Your task to perform on an android device: What's the weather going to be tomorrow? Image 0: 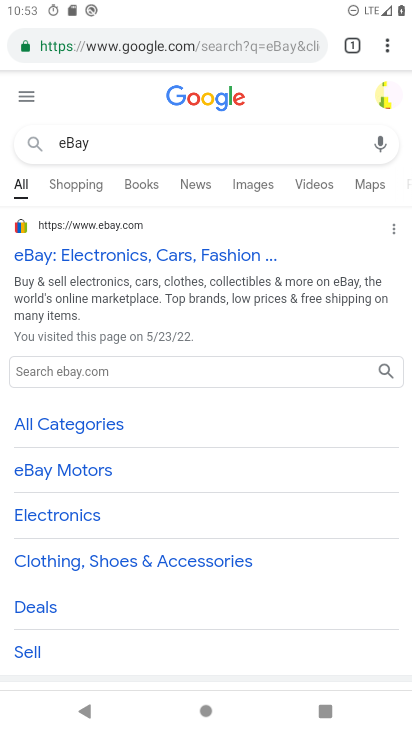
Step 0: press home button
Your task to perform on an android device: What's the weather going to be tomorrow? Image 1: 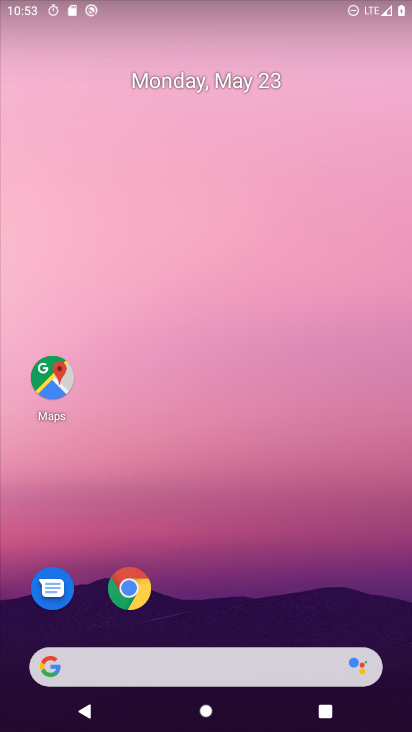
Step 1: drag from (386, 695) to (314, 168)
Your task to perform on an android device: What's the weather going to be tomorrow? Image 2: 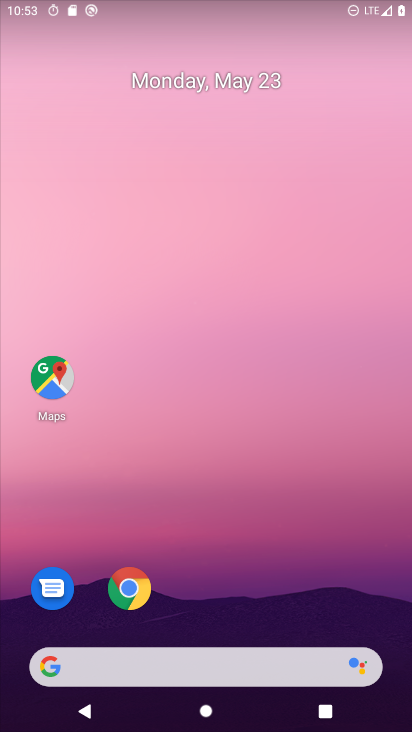
Step 2: drag from (393, 704) to (358, 296)
Your task to perform on an android device: What's the weather going to be tomorrow? Image 3: 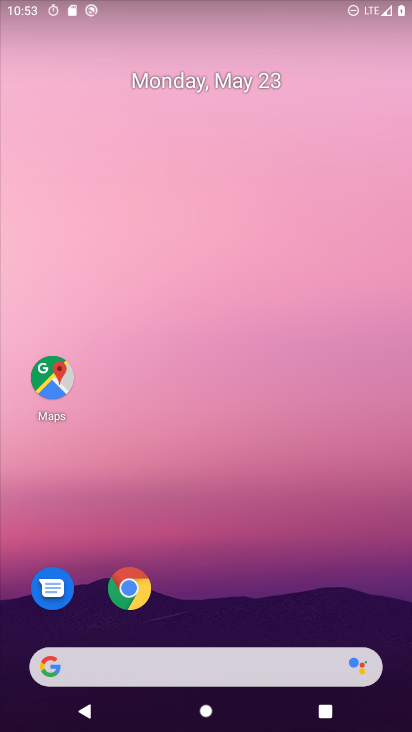
Step 3: drag from (394, 707) to (329, 28)
Your task to perform on an android device: What's the weather going to be tomorrow? Image 4: 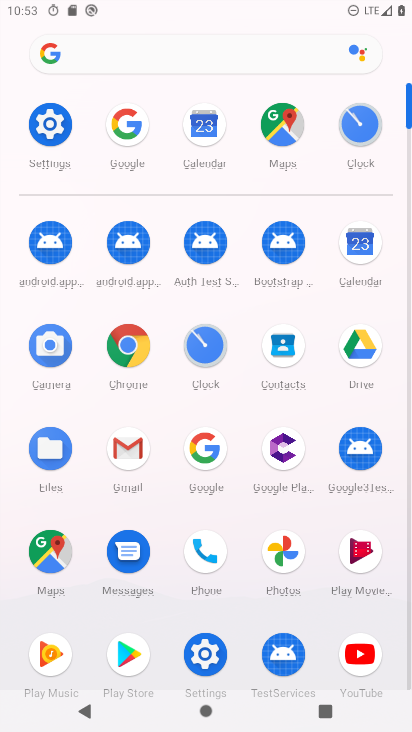
Step 4: click (210, 446)
Your task to perform on an android device: What's the weather going to be tomorrow? Image 5: 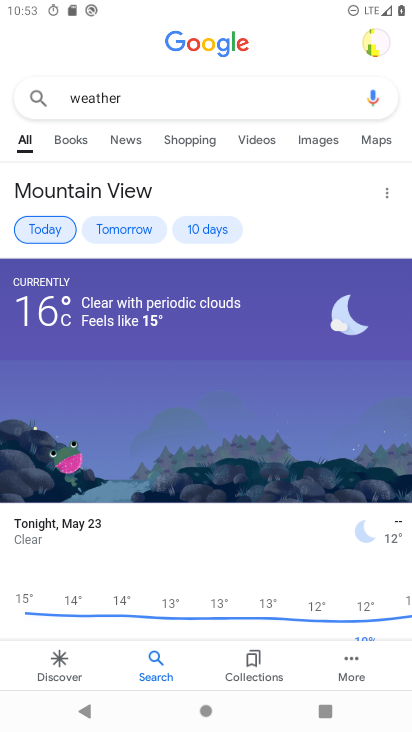
Step 5: click (131, 227)
Your task to perform on an android device: What's the weather going to be tomorrow? Image 6: 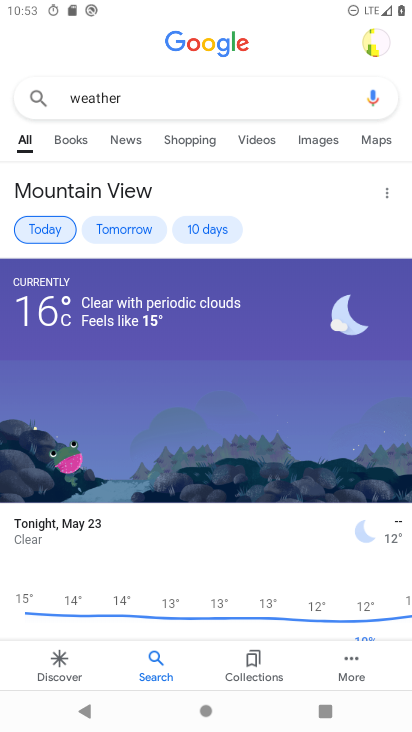
Step 6: click (112, 231)
Your task to perform on an android device: What's the weather going to be tomorrow? Image 7: 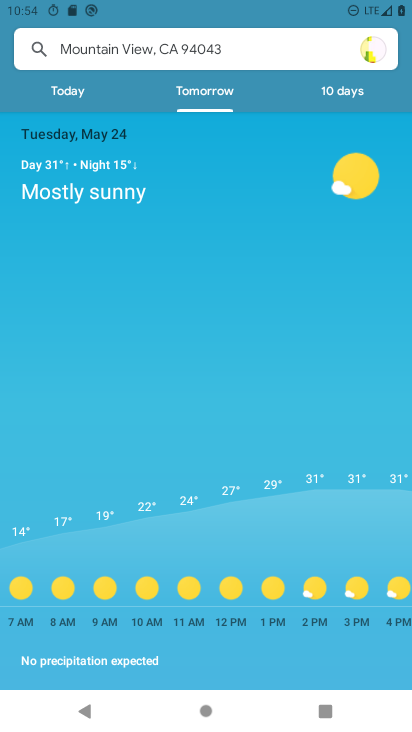
Step 7: task complete